Your task to perform on an android device: open chrome privacy settings Image 0: 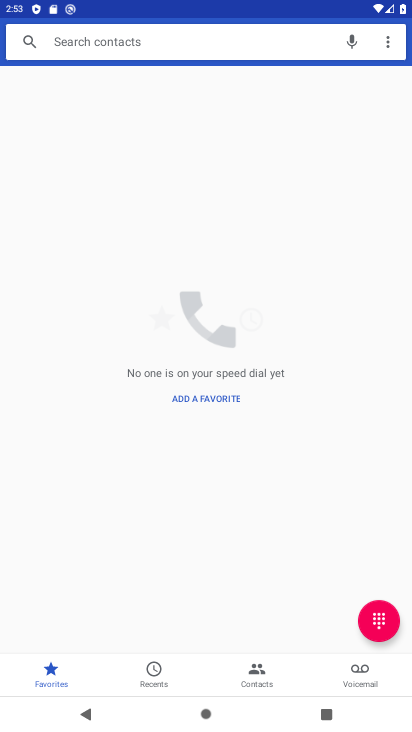
Step 0: press home button
Your task to perform on an android device: open chrome privacy settings Image 1: 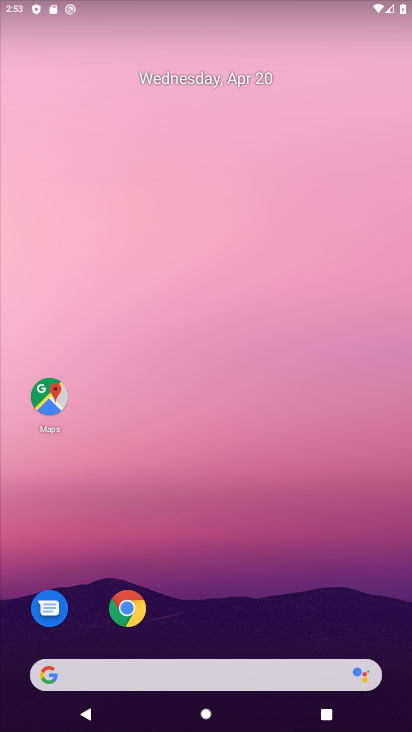
Step 1: click (131, 620)
Your task to perform on an android device: open chrome privacy settings Image 2: 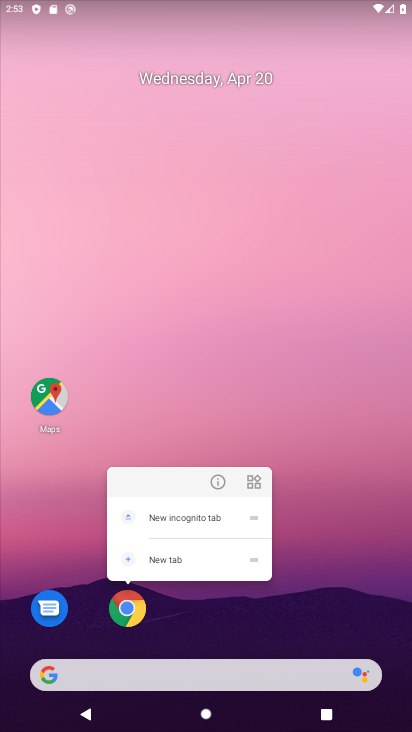
Step 2: click (131, 620)
Your task to perform on an android device: open chrome privacy settings Image 3: 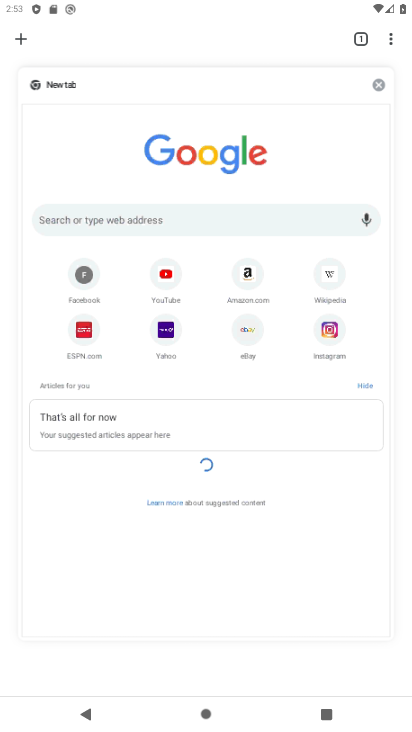
Step 3: click (168, 536)
Your task to perform on an android device: open chrome privacy settings Image 4: 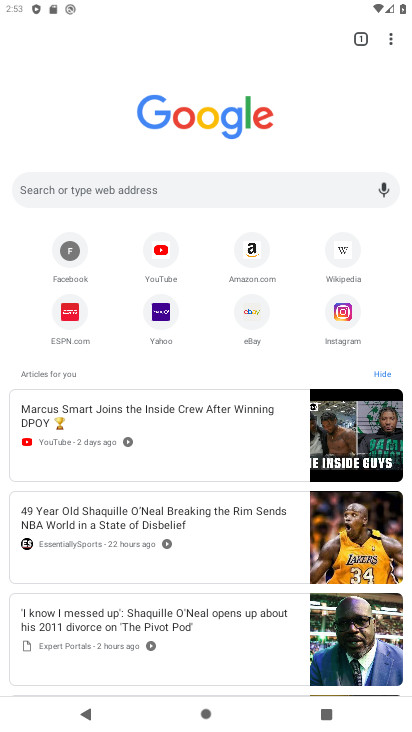
Step 4: drag from (389, 44) to (249, 336)
Your task to perform on an android device: open chrome privacy settings Image 5: 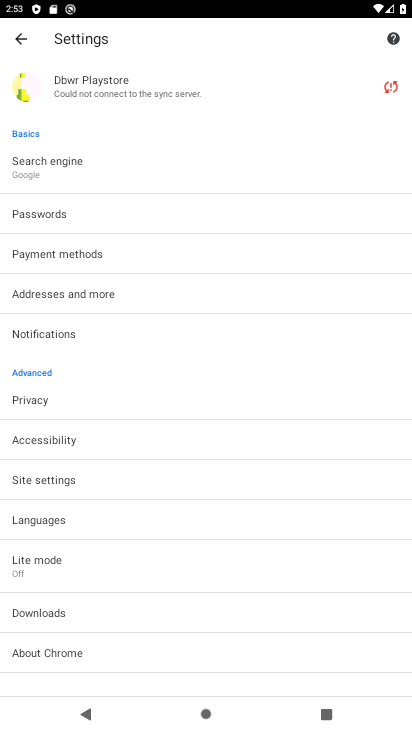
Step 5: click (39, 400)
Your task to perform on an android device: open chrome privacy settings Image 6: 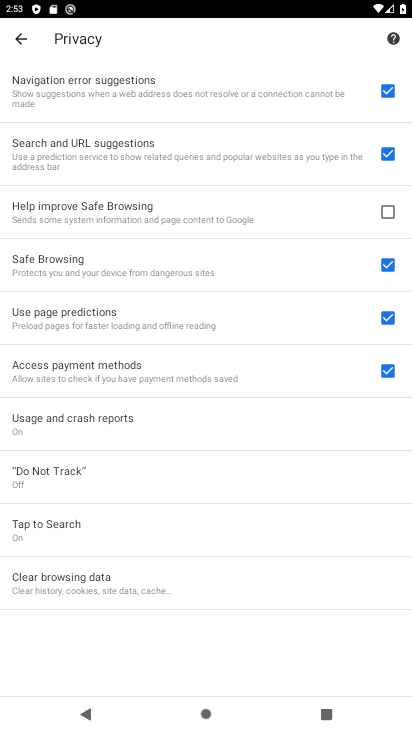
Step 6: task complete